Your task to perform on an android device: open device folders in google photos Image 0: 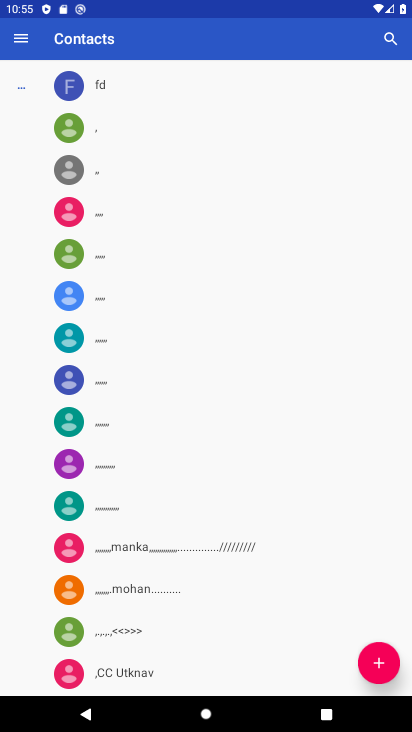
Step 0: press home button
Your task to perform on an android device: open device folders in google photos Image 1: 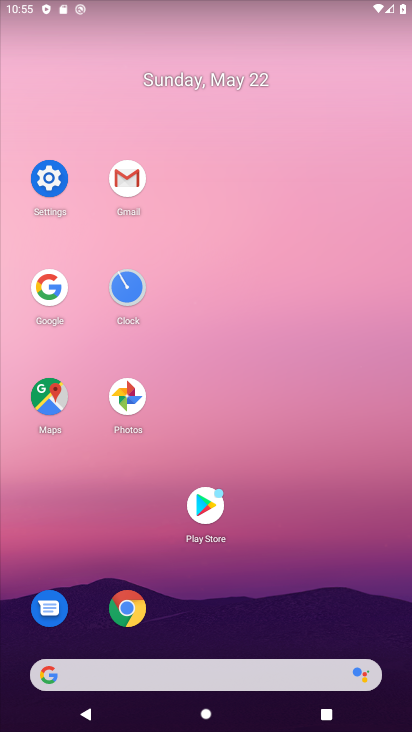
Step 1: click (124, 398)
Your task to perform on an android device: open device folders in google photos Image 2: 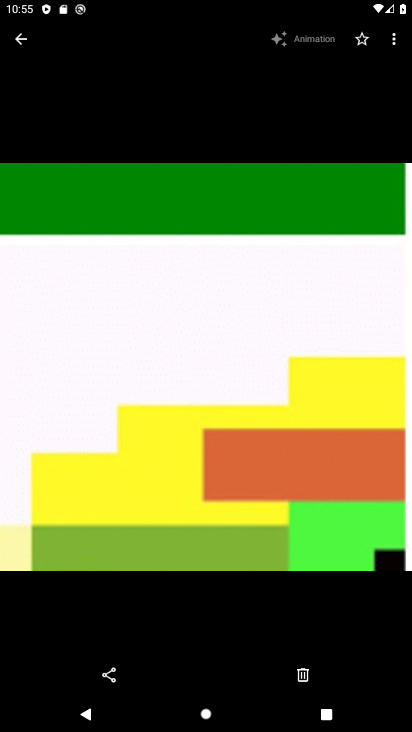
Step 2: click (21, 46)
Your task to perform on an android device: open device folders in google photos Image 3: 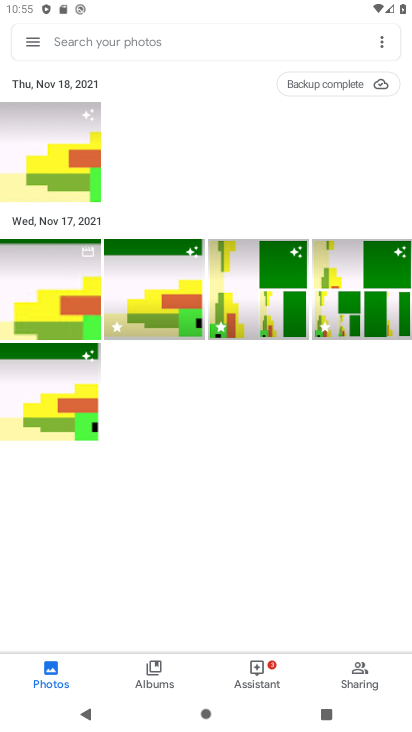
Step 3: click (21, 46)
Your task to perform on an android device: open device folders in google photos Image 4: 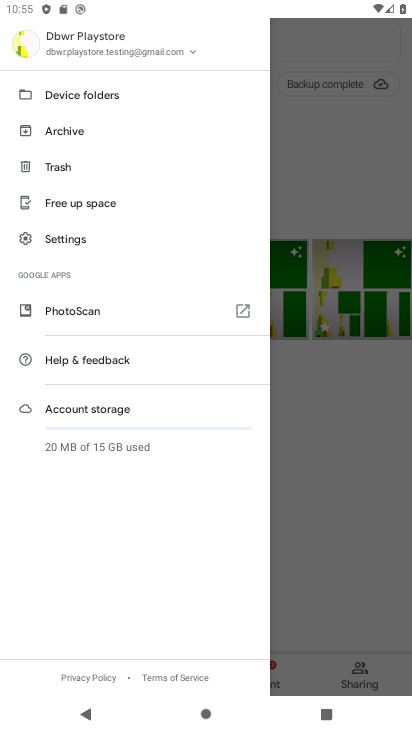
Step 4: click (92, 100)
Your task to perform on an android device: open device folders in google photos Image 5: 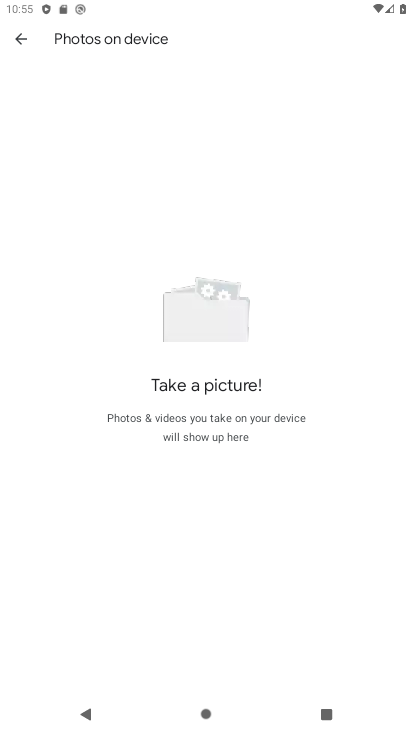
Step 5: task complete